Your task to perform on an android device: Open display settings Image 0: 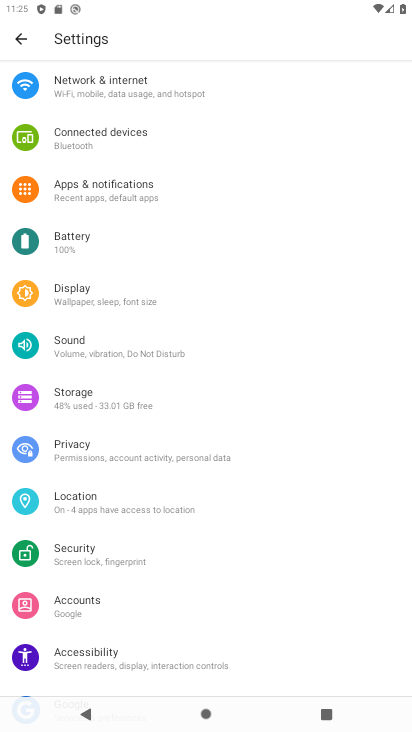
Step 0: click (176, 305)
Your task to perform on an android device: Open display settings Image 1: 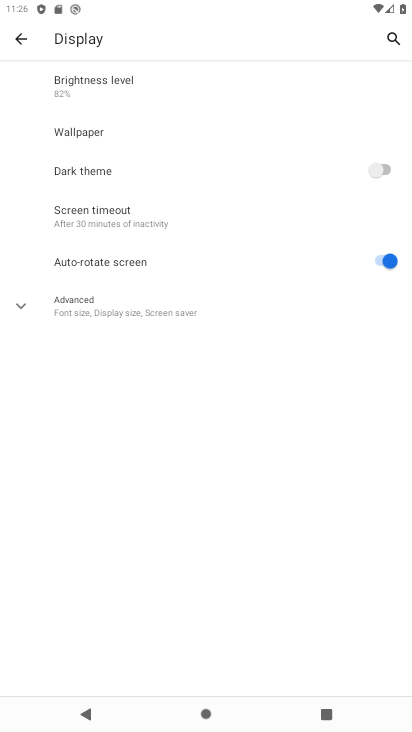
Step 1: task complete